Your task to perform on an android device: turn smart compose on in the gmail app Image 0: 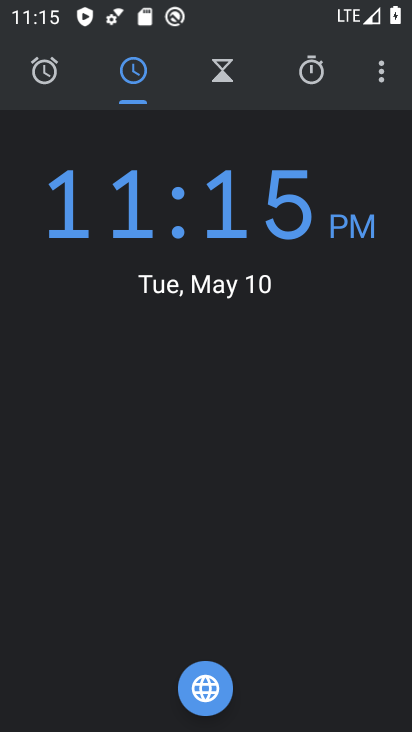
Step 0: press home button
Your task to perform on an android device: turn smart compose on in the gmail app Image 1: 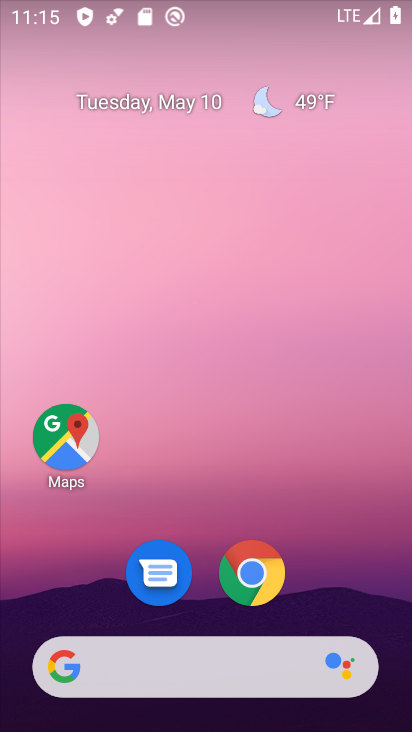
Step 1: drag from (163, 668) to (306, 42)
Your task to perform on an android device: turn smart compose on in the gmail app Image 2: 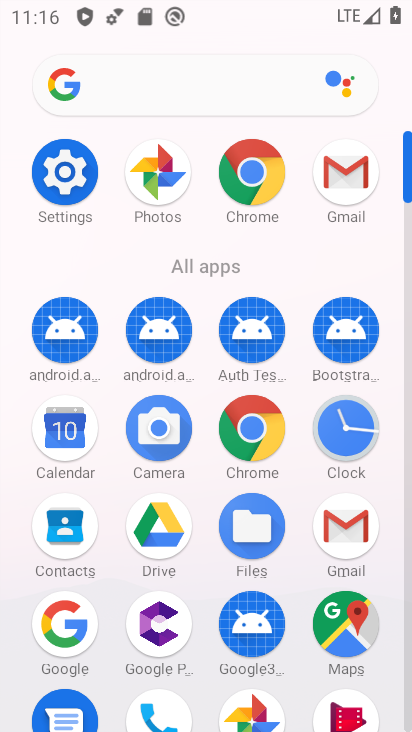
Step 2: click (330, 190)
Your task to perform on an android device: turn smart compose on in the gmail app Image 3: 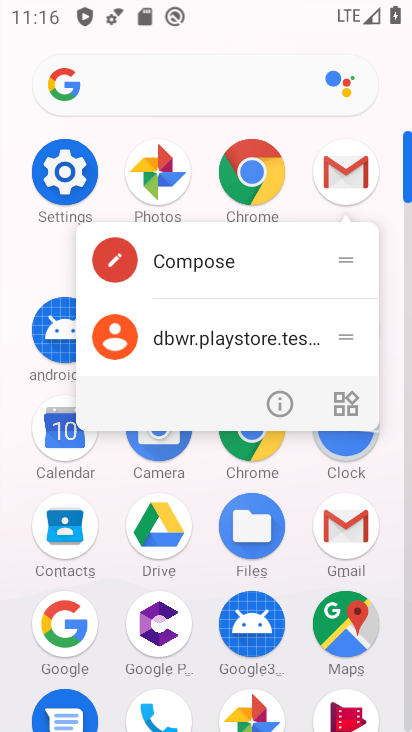
Step 3: click (355, 176)
Your task to perform on an android device: turn smart compose on in the gmail app Image 4: 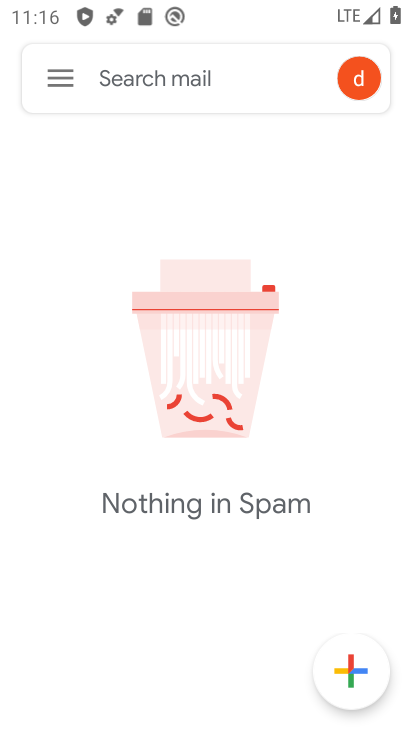
Step 4: click (60, 76)
Your task to perform on an android device: turn smart compose on in the gmail app Image 5: 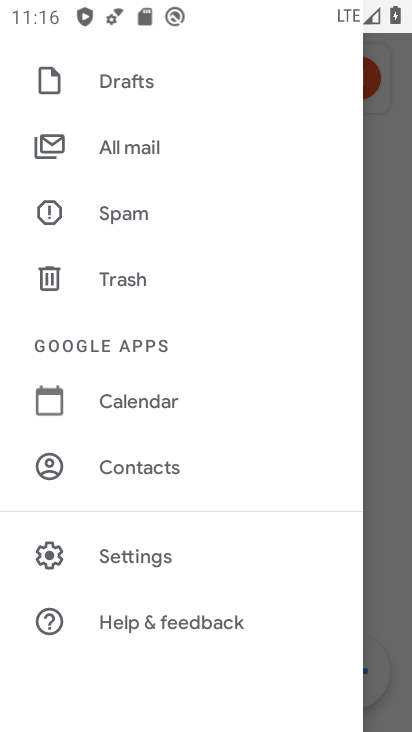
Step 5: click (144, 554)
Your task to perform on an android device: turn smart compose on in the gmail app Image 6: 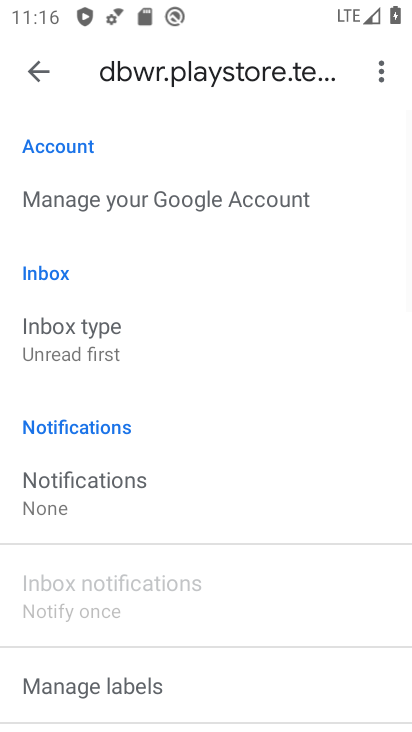
Step 6: task complete